Your task to perform on an android device: search for starred emails in the gmail app Image 0: 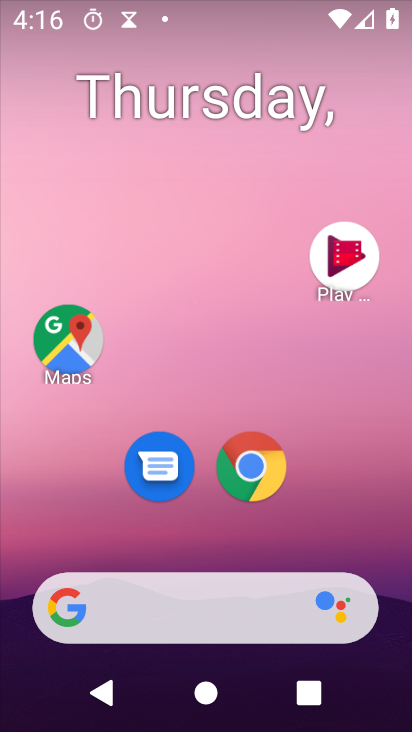
Step 0: drag from (252, 575) to (273, 12)
Your task to perform on an android device: search for starred emails in the gmail app Image 1: 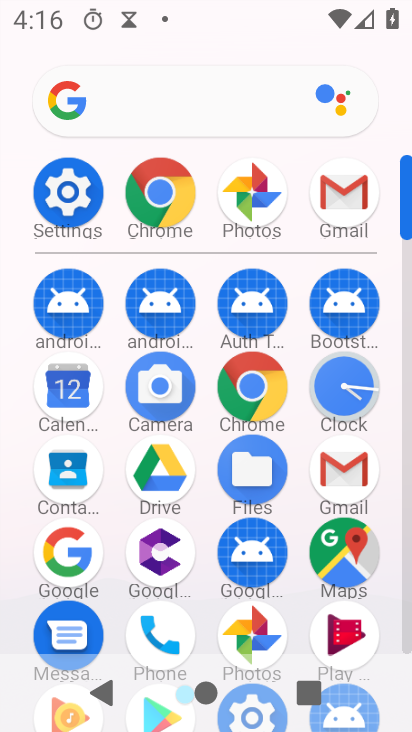
Step 1: click (325, 476)
Your task to perform on an android device: search for starred emails in the gmail app Image 2: 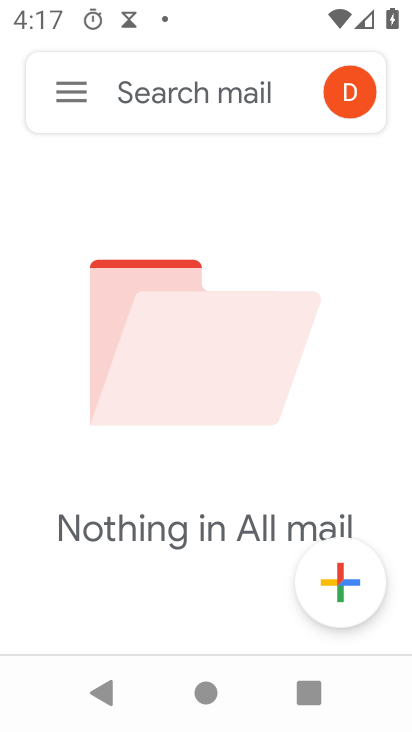
Step 2: click (53, 84)
Your task to perform on an android device: search for starred emails in the gmail app Image 3: 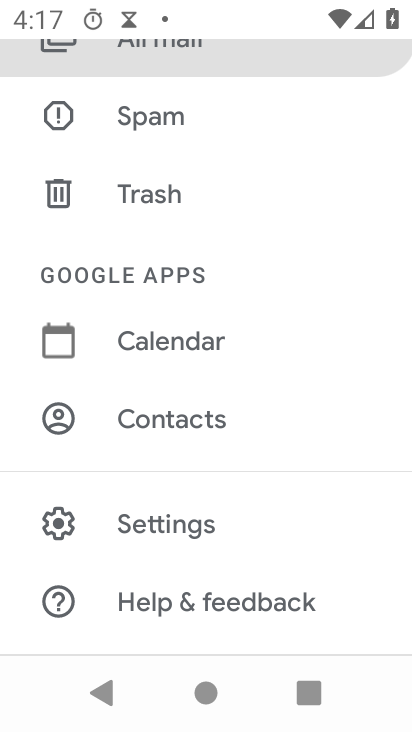
Step 3: drag from (139, 186) to (213, 730)
Your task to perform on an android device: search for starred emails in the gmail app Image 4: 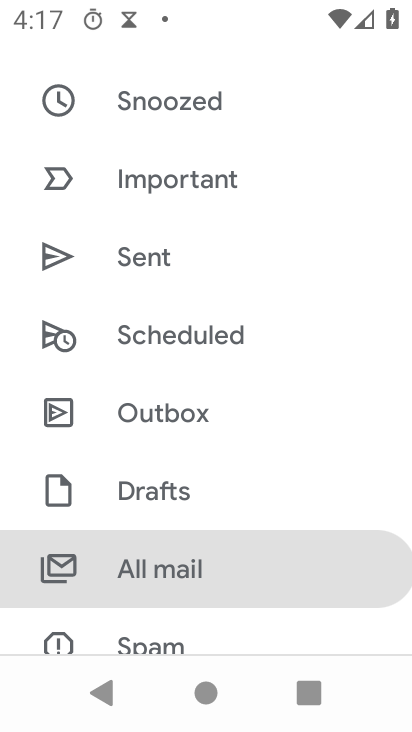
Step 4: drag from (201, 154) to (260, 647)
Your task to perform on an android device: search for starred emails in the gmail app Image 5: 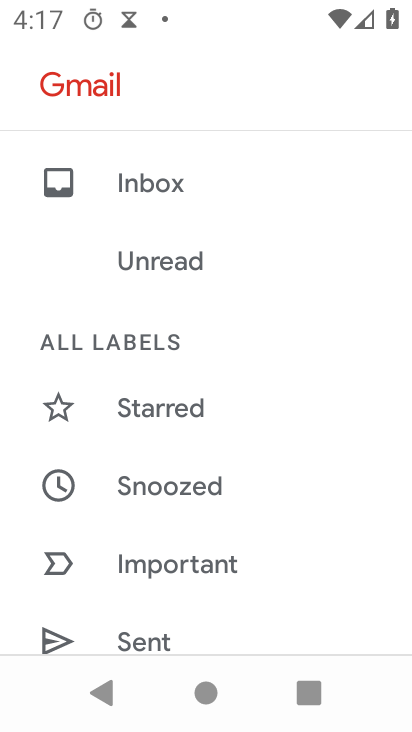
Step 5: click (177, 407)
Your task to perform on an android device: search for starred emails in the gmail app Image 6: 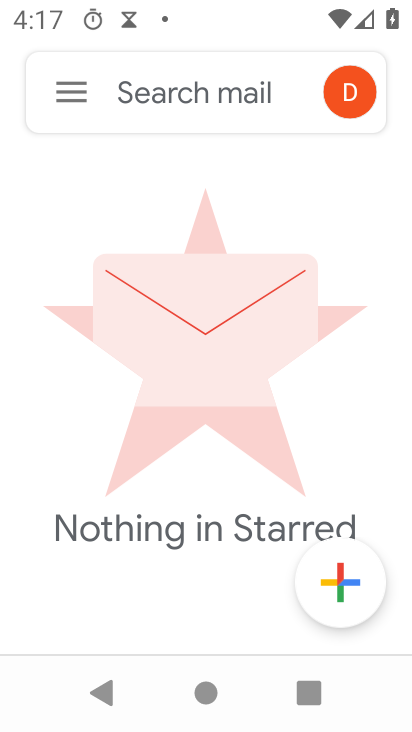
Step 6: task complete